Your task to perform on an android device: Open battery settings Image 0: 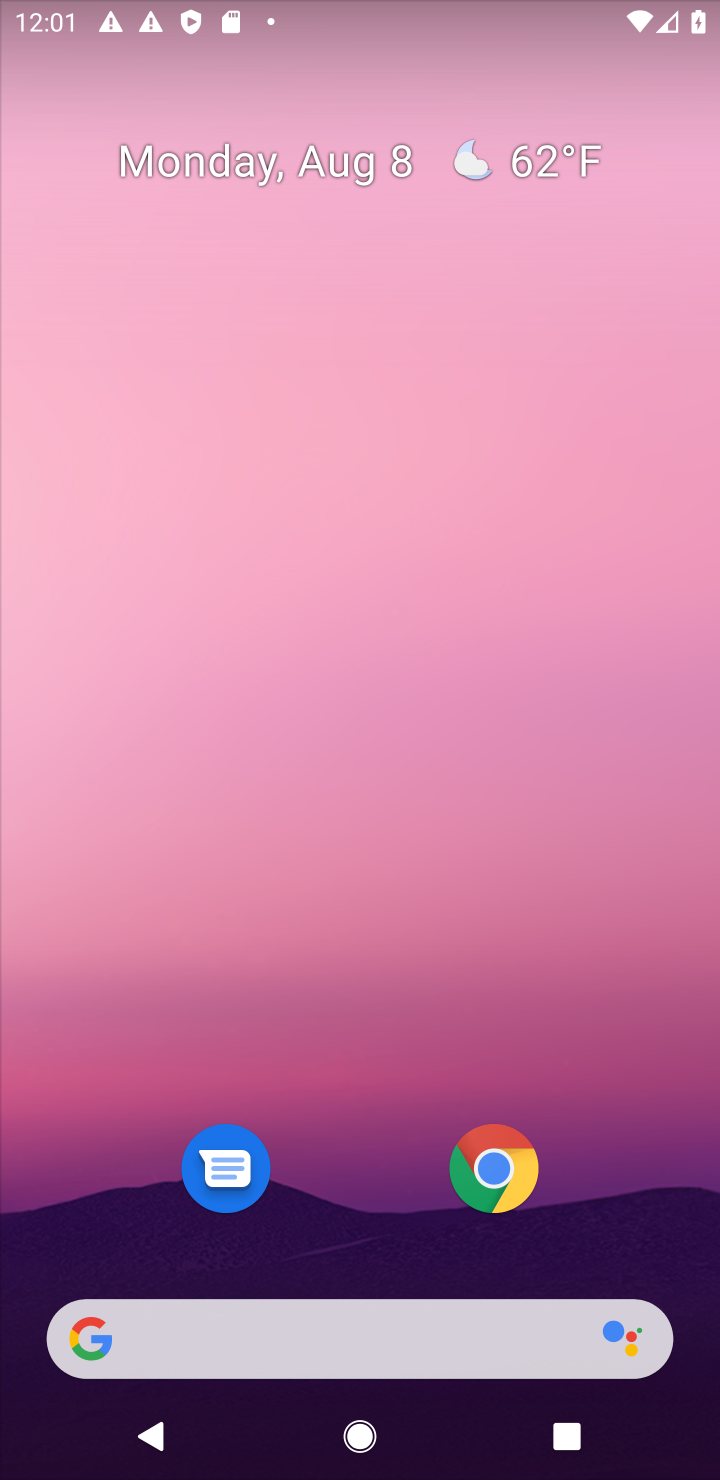
Step 0: drag from (284, 780) to (271, 229)
Your task to perform on an android device: Open battery settings Image 1: 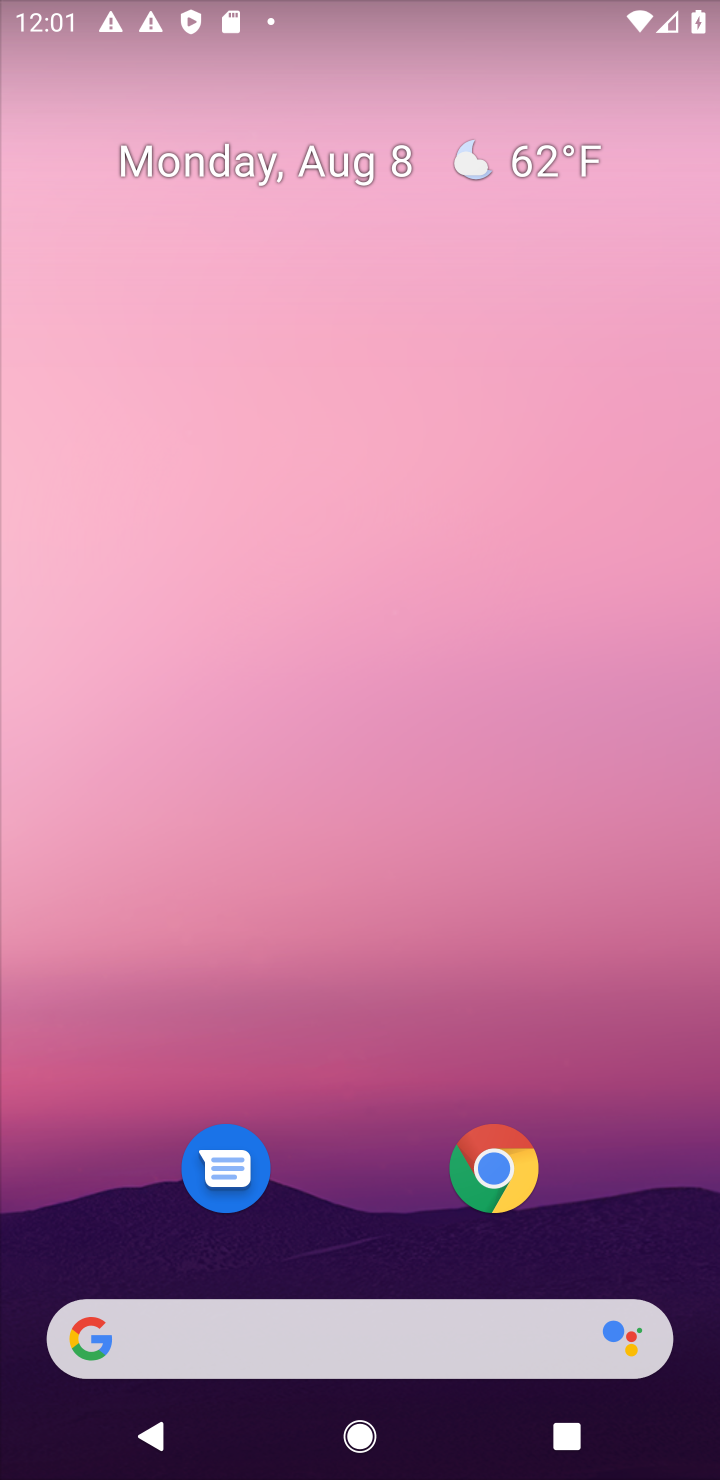
Step 1: drag from (370, 1274) to (370, 138)
Your task to perform on an android device: Open battery settings Image 2: 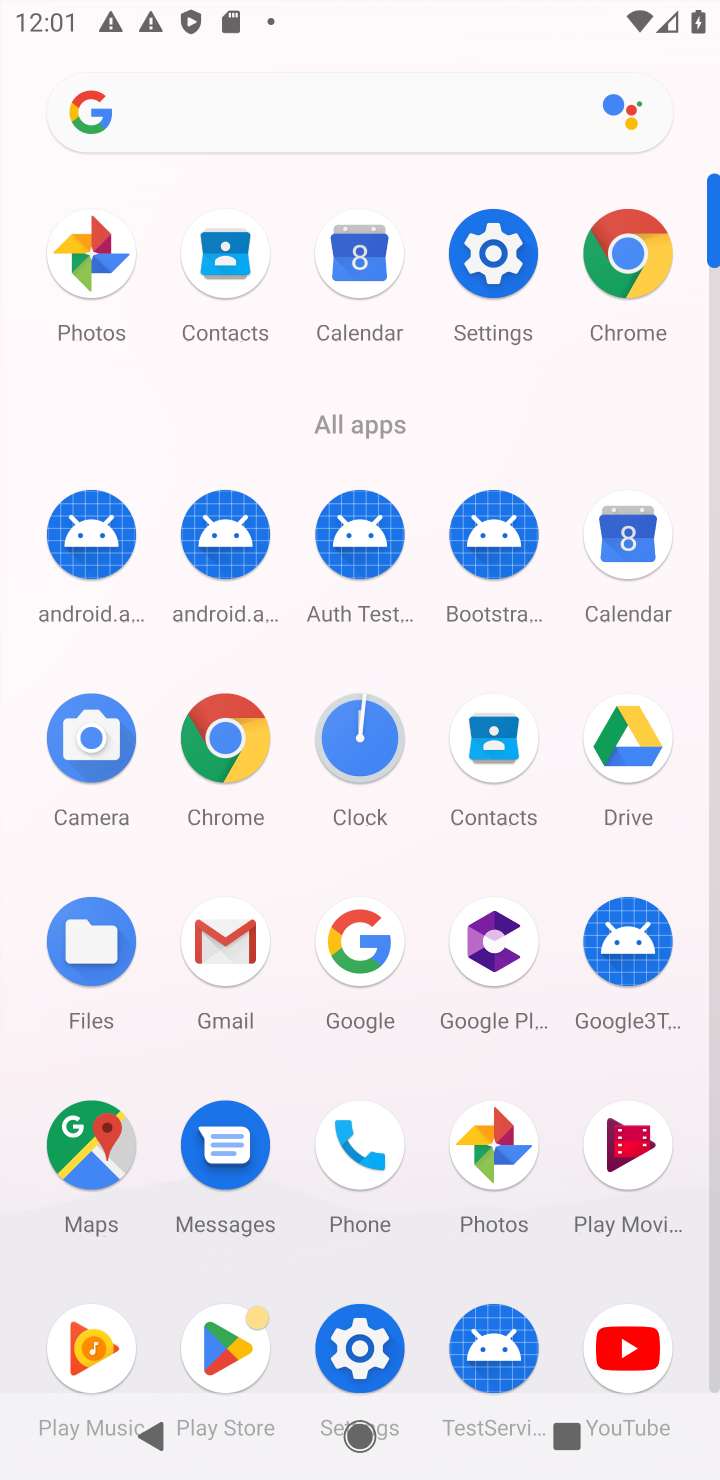
Step 2: click (466, 345)
Your task to perform on an android device: Open battery settings Image 3: 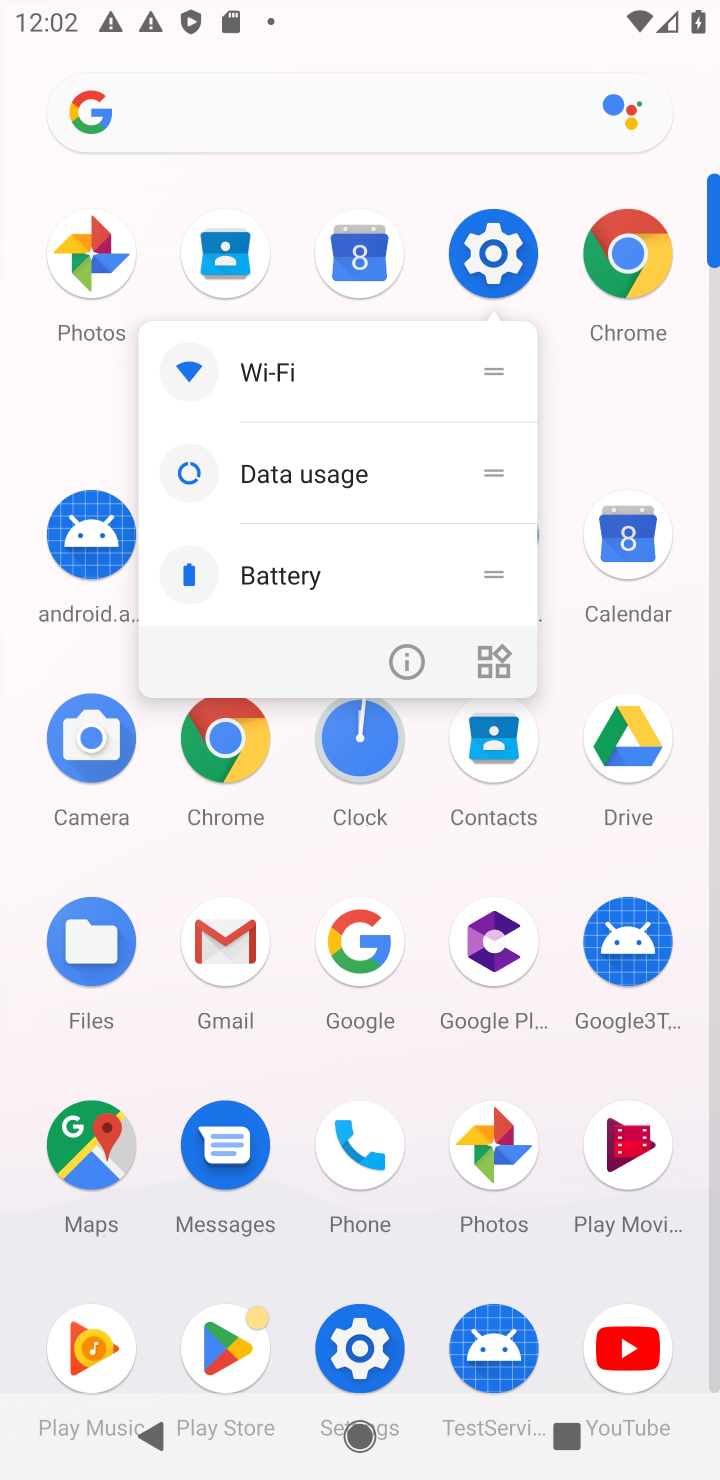
Step 3: click (271, 585)
Your task to perform on an android device: Open battery settings Image 4: 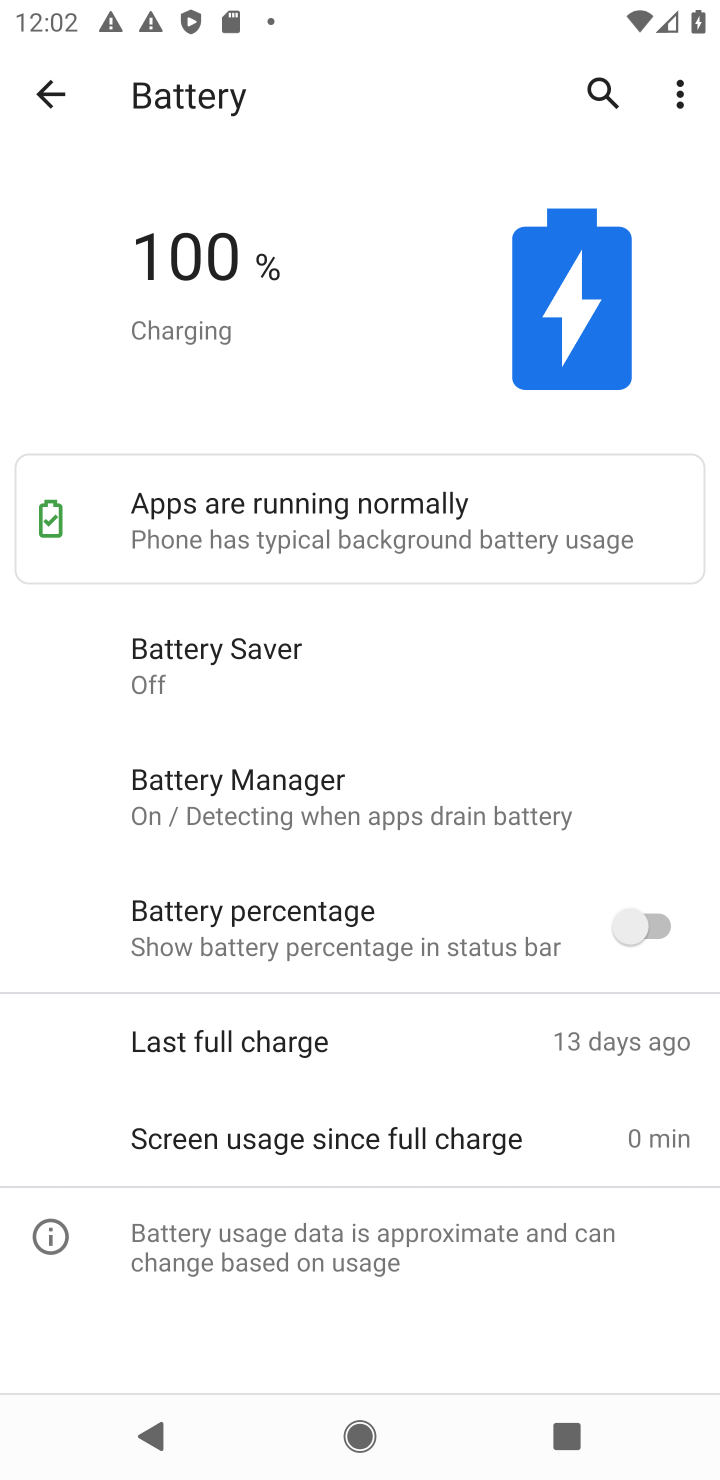
Step 4: task complete